Your task to perform on an android device: toggle wifi Image 0: 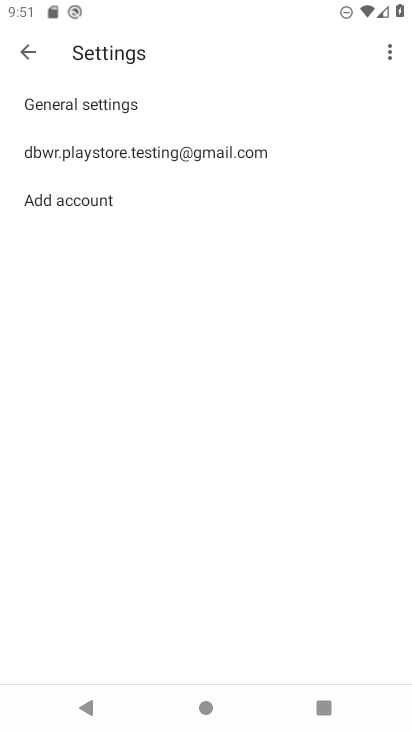
Step 0: press home button
Your task to perform on an android device: toggle wifi Image 1: 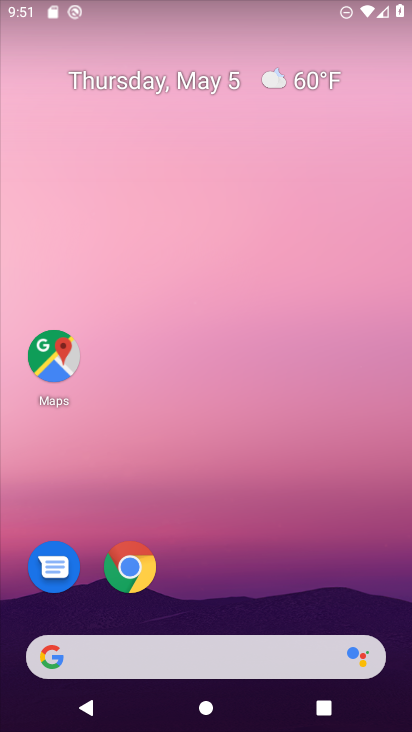
Step 1: drag from (229, 714) to (229, 109)
Your task to perform on an android device: toggle wifi Image 2: 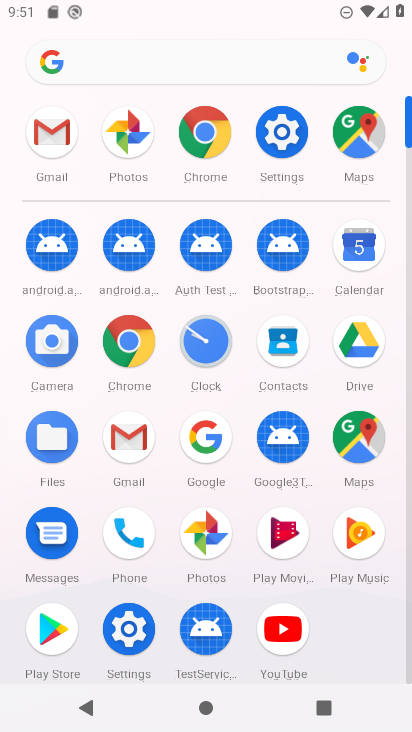
Step 2: click (287, 128)
Your task to perform on an android device: toggle wifi Image 3: 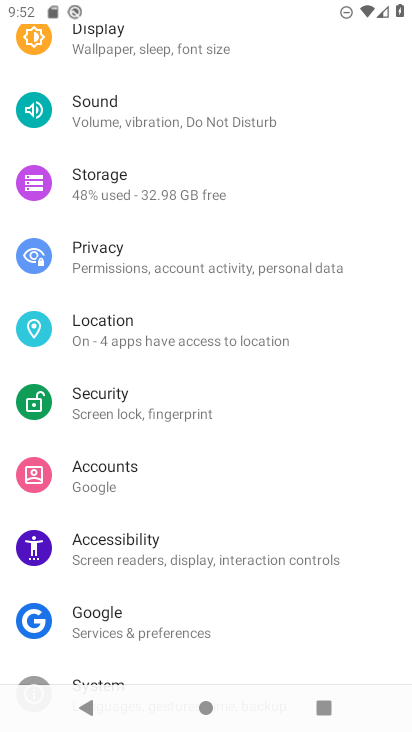
Step 3: drag from (232, 99) to (204, 491)
Your task to perform on an android device: toggle wifi Image 4: 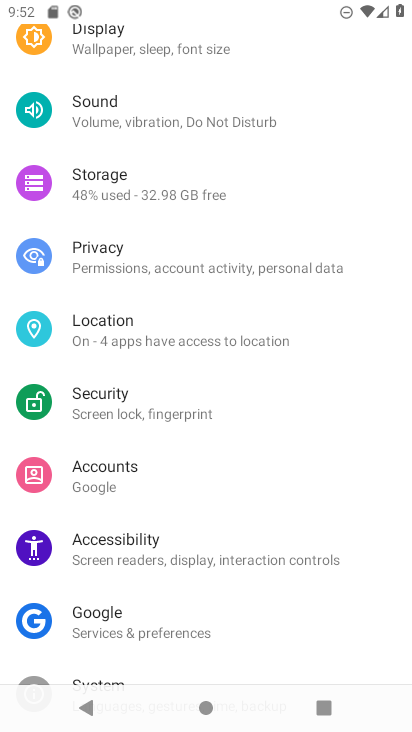
Step 4: drag from (217, 99) to (221, 445)
Your task to perform on an android device: toggle wifi Image 5: 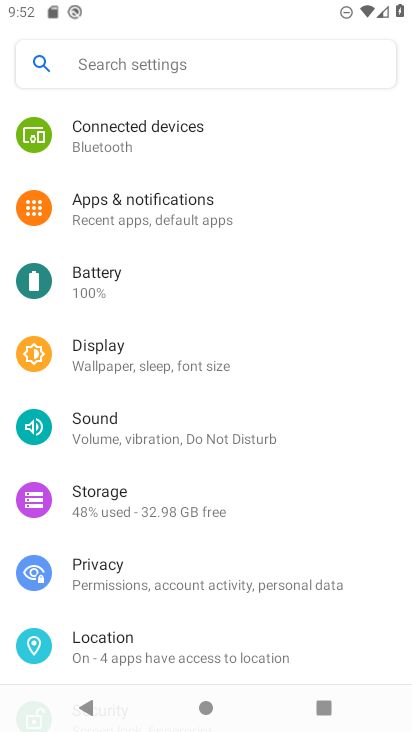
Step 5: drag from (244, 132) to (224, 490)
Your task to perform on an android device: toggle wifi Image 6: 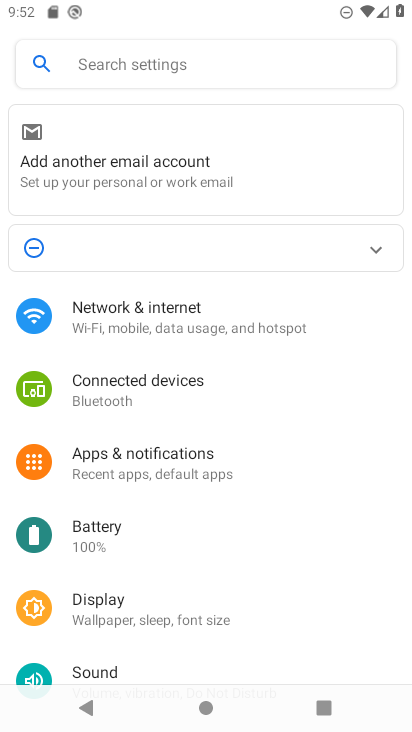
Step 6: click (118, 324)
Your task to perform on an android device: toggle wifi Image 7: 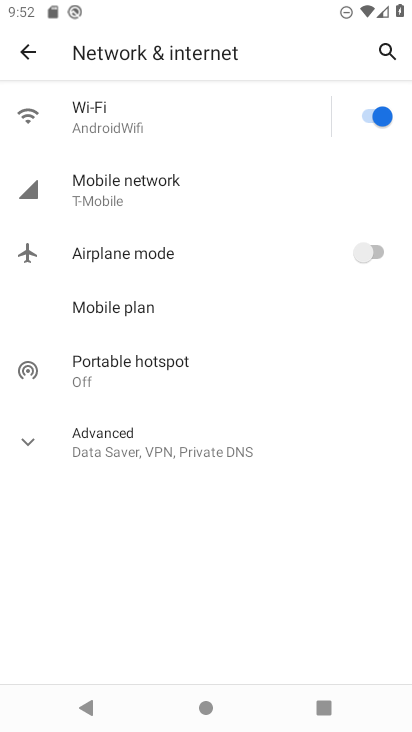
Step 7: click (368, 114)
Your task to perform on an android device: toggle wifi Image 8: 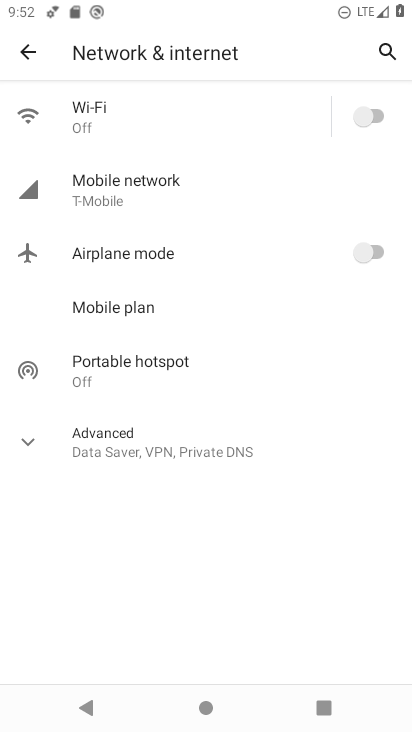
Step 8: task complete